Your task to perform on an android device: change notifications settings Image 0: 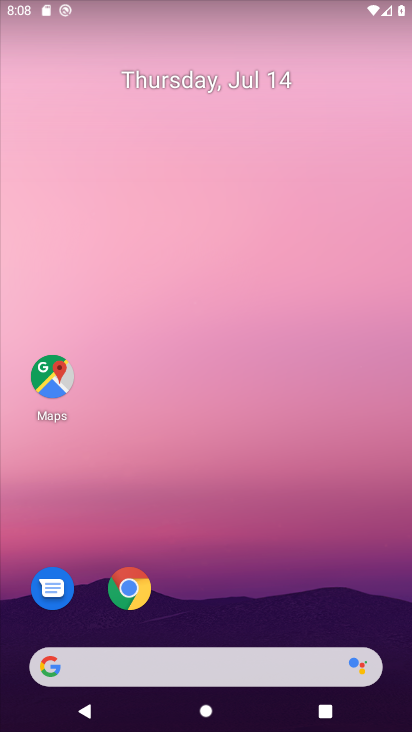
Step 0: drag from (352, 605) to (380, 123)
Your task to perform on an android device: change notifications settings Image 1: 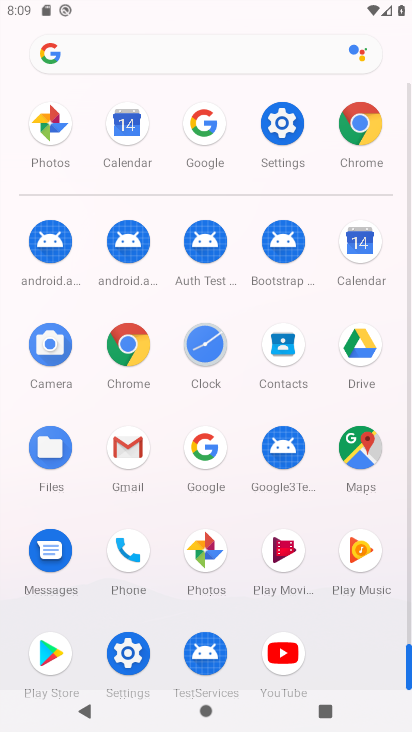
Step 1: click (287, 136)
Your task to perform on an android device: change notifications settings Image 2: 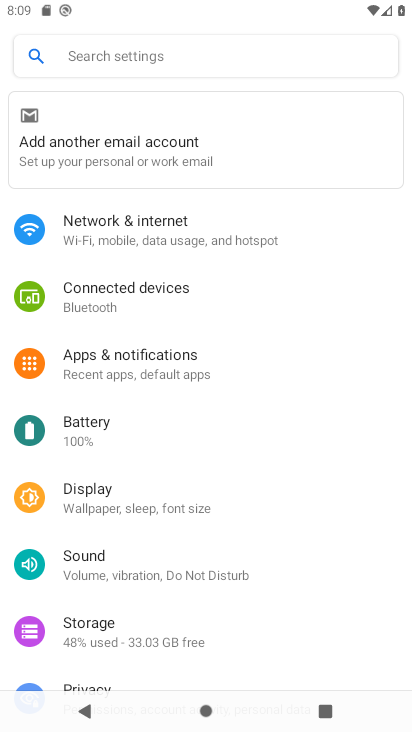
Step 2: drag from (339, 484) to (346, 421)
Your task to perform on an android device: change notifications settings Image 3: 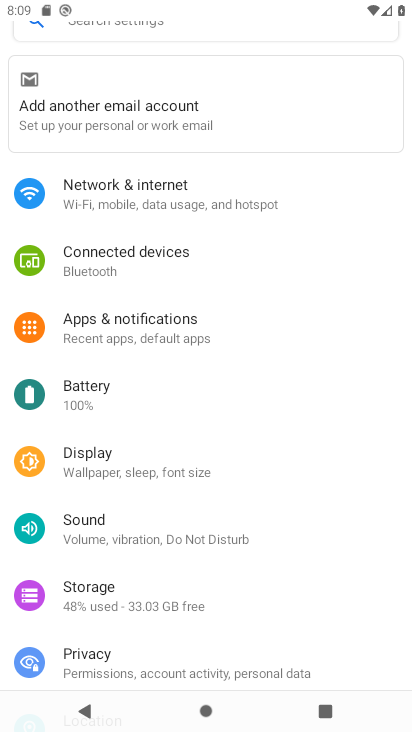
Step 3: drag from (352, 566) to (353, 474)
Your task to perform on an android device: change notifications settings Image 4: 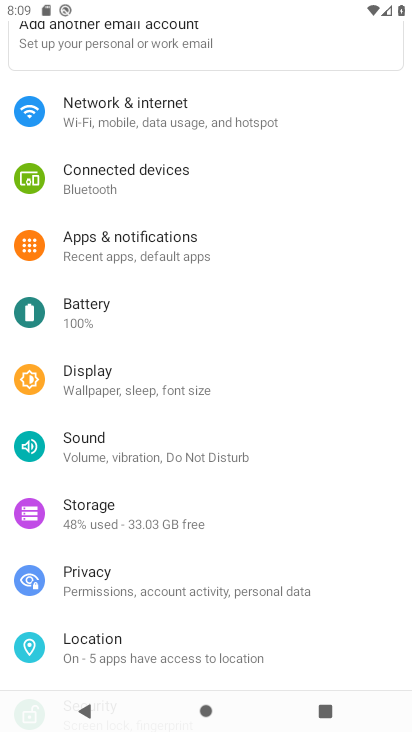
Step 4: drag from (366, 584) to (368, 495)
Your task to perform on an android device: change notifications settings Image 5: 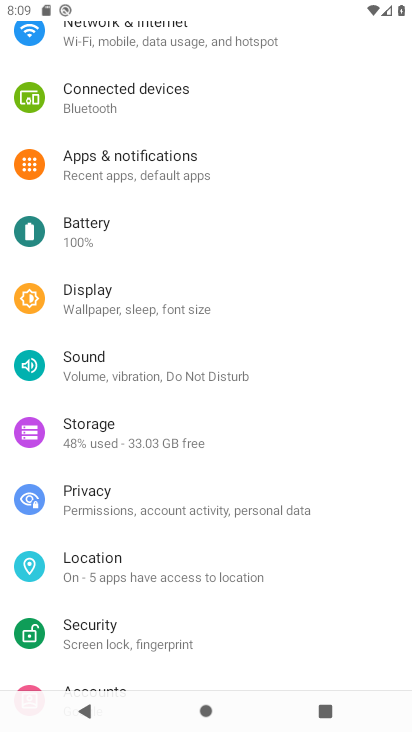
Step 5: drag from (367, 596) to (362, 461)
Your task to perform on an android device: change notifications settings Image 6: 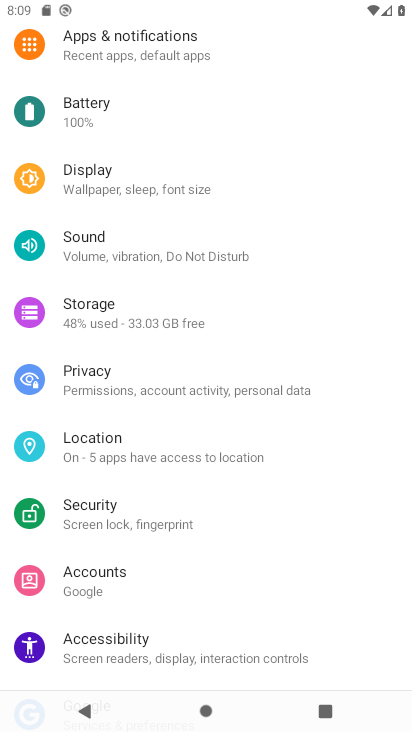
Step 6: drag from (348, 541) to (348, 417)
Your task to perform on an android device: change notifications settings Image 7: 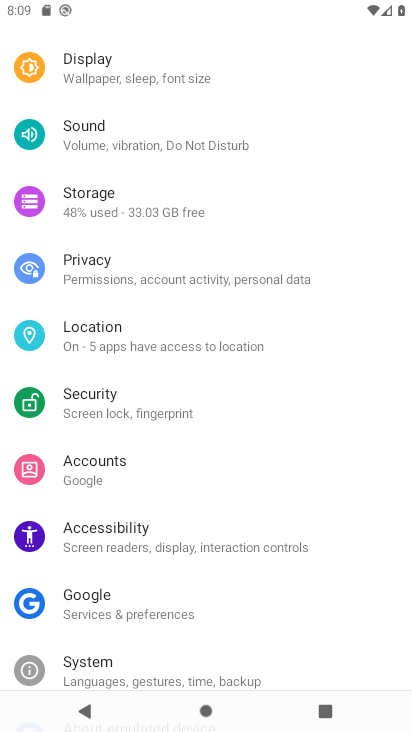
Step 7: drag from (347, 345) to (347, 420)
Your task to perform on an android device: change notifications settings Image 8: 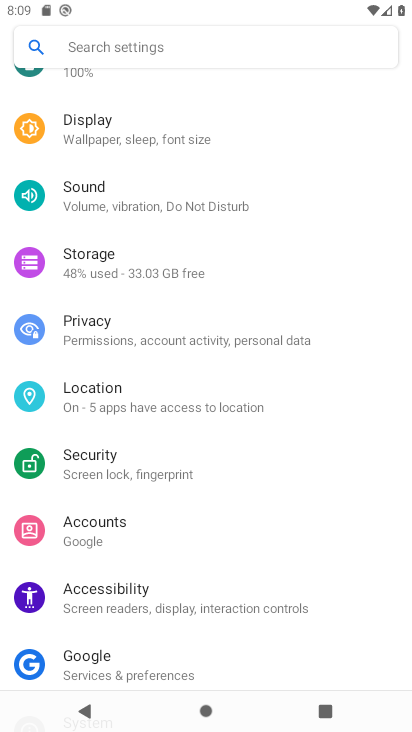
Step 8: drag from (352, 296) to (352, 383)
Your task to perform on an android device: change notifications settings Image 9: 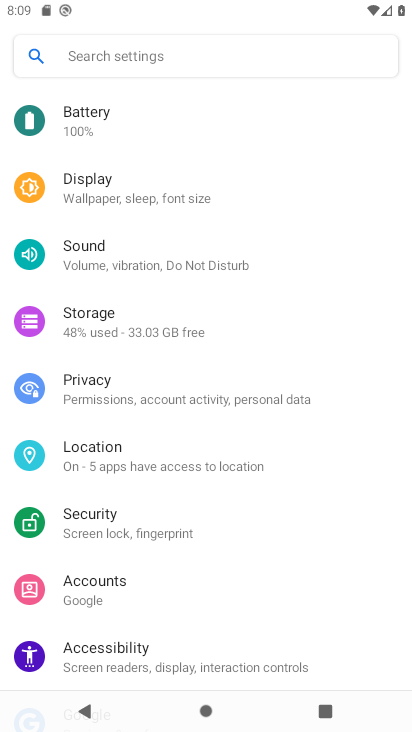
Step 9: drag from (352, 265) to (360, 351)
Your task to perform on an android device: change notifications settings Image 10: 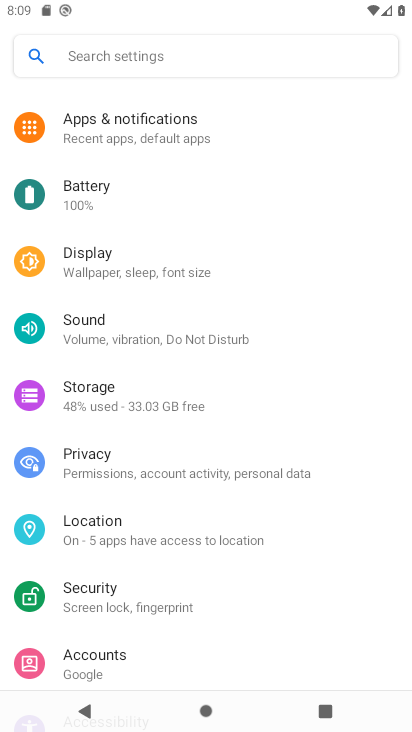
Step 10: drag from (356, 258) to (356, 338)
Your task to perform on an android device: change notifications settings Image 11: 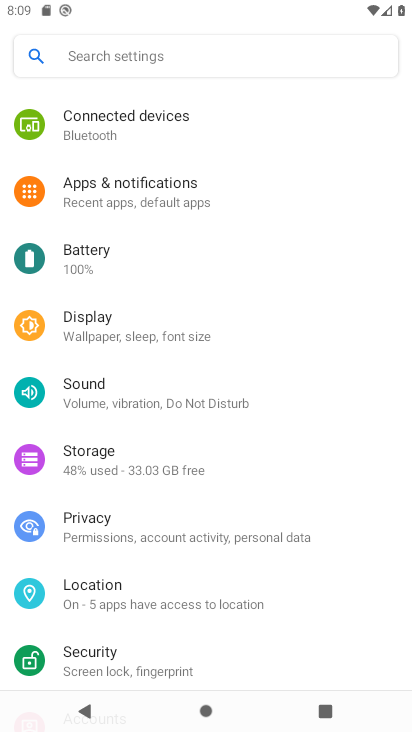
Step 11: drag from (356, 243) to (355, 350)
Your task to perform on an android device: change notifications settings Image 12: 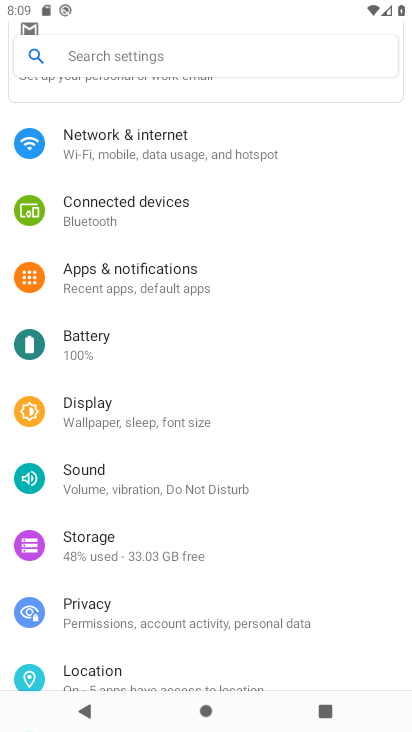
Step 12: drag from (332, 214) to (345, 396)
Your task to perform on an android device: change notifications settings Image 13: 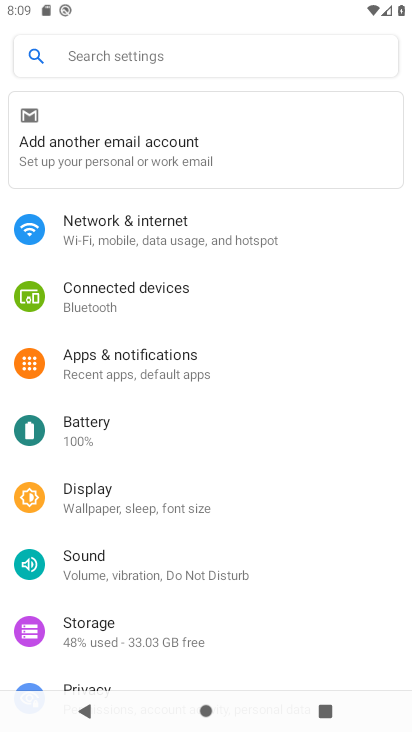
Step 13: click (177, 364)
Your task to perform on an android device: change notifications settings Image 14: 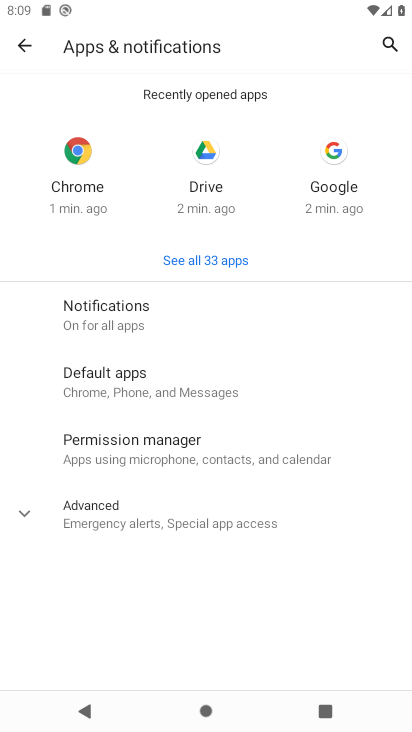
Step 14: click (143, 314)
Your task to perform on an android device: change notifications settings Image 15: 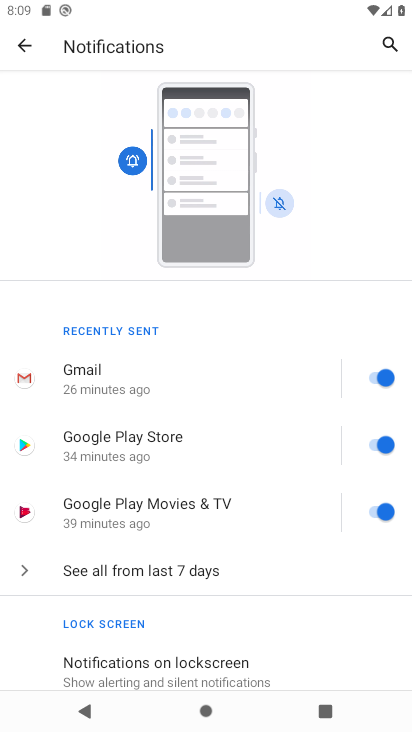
Step 15: drag from (292, 528) to (316, 222)
Your task to perform on an android device: change notifications settings Image 16: 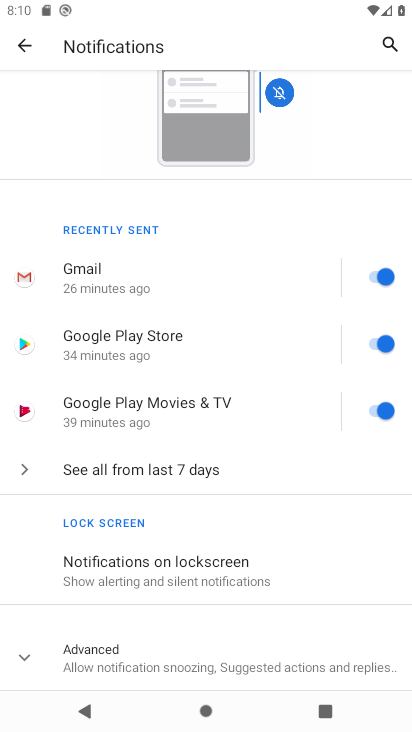
Step 16: drag from (325, 513) to (320, 222)
Your task to perform on an android device: change notifications settings Image 17: 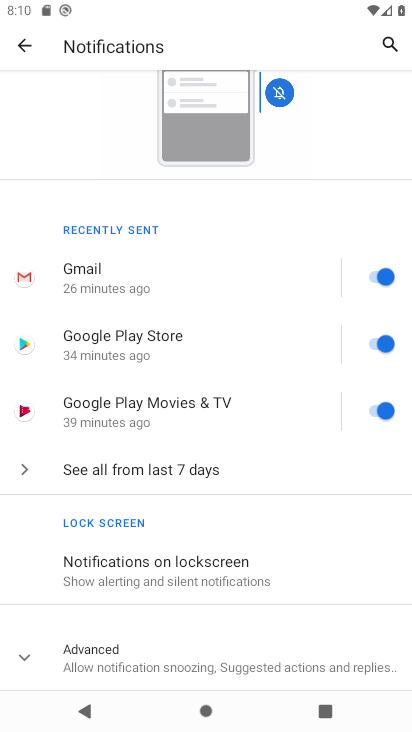
Step 17: click (389, 404)
Your task to perform on an android device: change notifications settings Image 18: 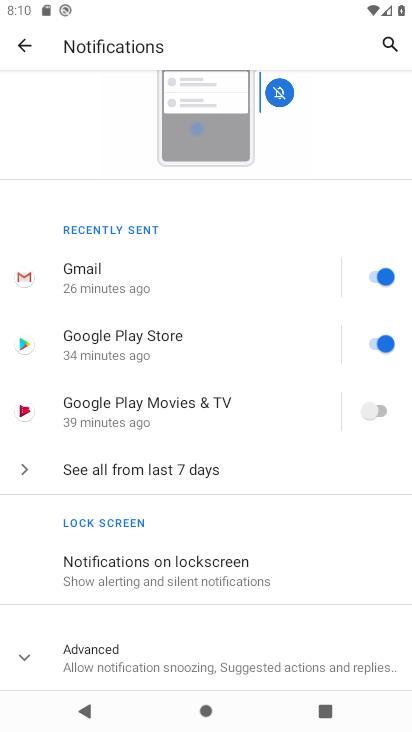
Step 18: click (390, 342)
Your task to perform on an android device: change notifications settings Image 19: 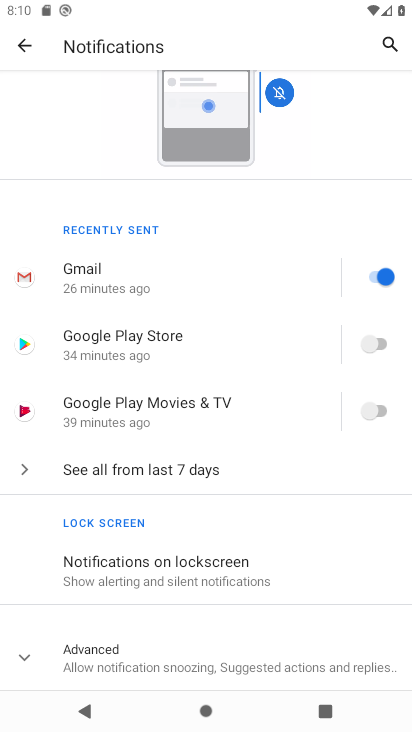
Step 19: click (382, 278)
Your task to perform on an android device: change notifications settings Image 20: 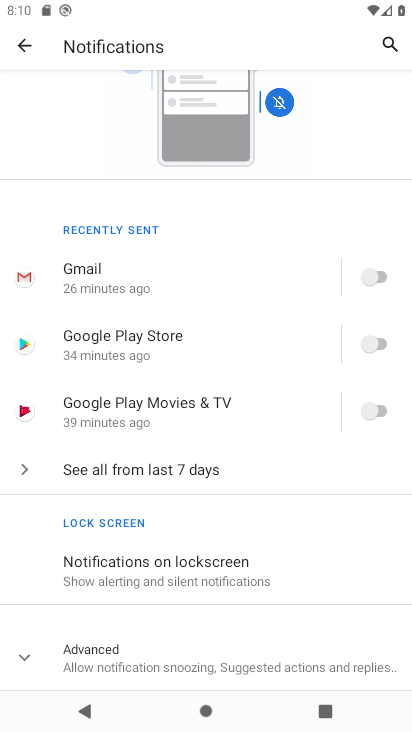
Step 20: task complete